Your task to perform on an android device: When is my next meeting? Image 0: 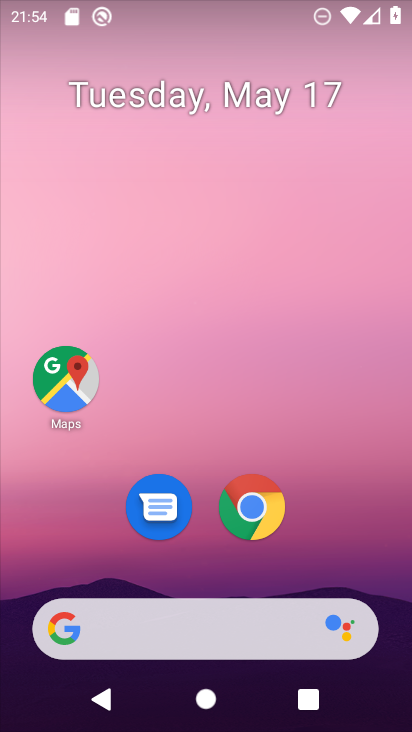
Step 0: drag from (359, 593) to (371, 32)
Your task to perform on an android device: When is my next meeting? Image 1: 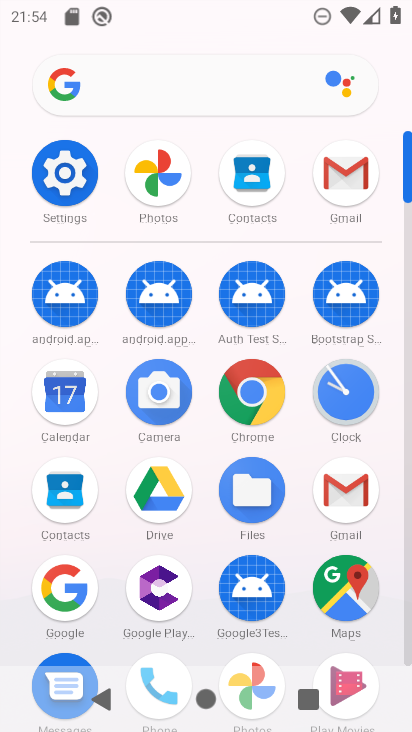
Step 1: click (59, 396)
Your task to perform on an android device: When is my next meeting? Image 2: 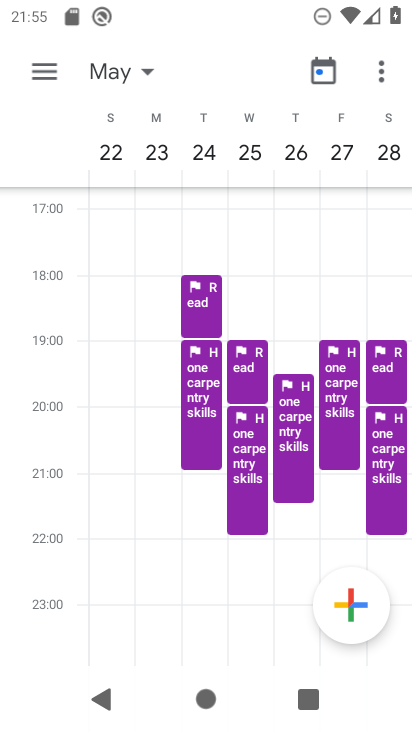
Step 2: click (41, 70)
Your task to perform on an android device: When is my next meeting? Image 3: 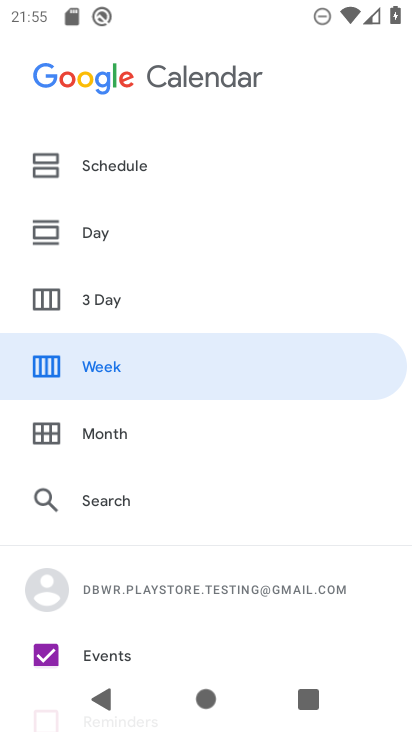
Step 3: click (92, 164)
Your task to perform on an android device: When is my next meeting? Image 4: 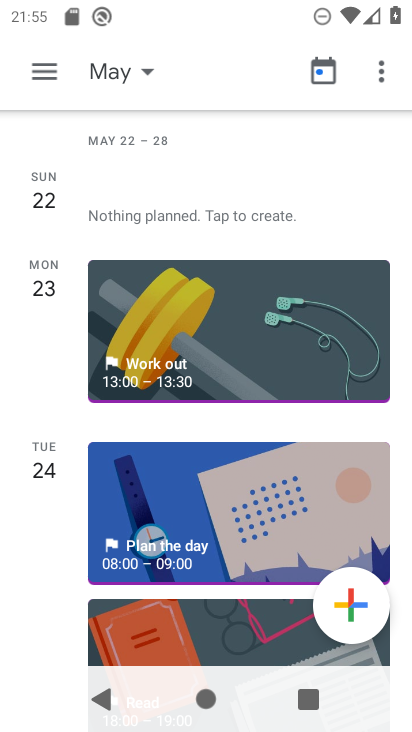
Step 4: drag from (141, 186) to (175, 458)
Your task to perform on an android device: When is my next meeting? Image 5: 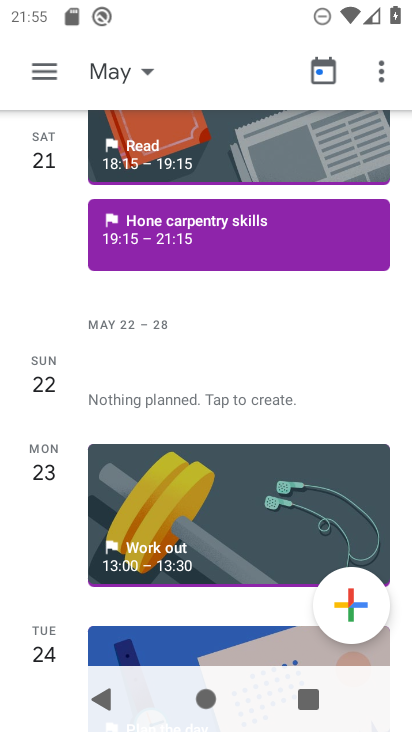
Step 5: click (320, 73)
Your task to perform on an android device: When is my next meeting? Image 6: 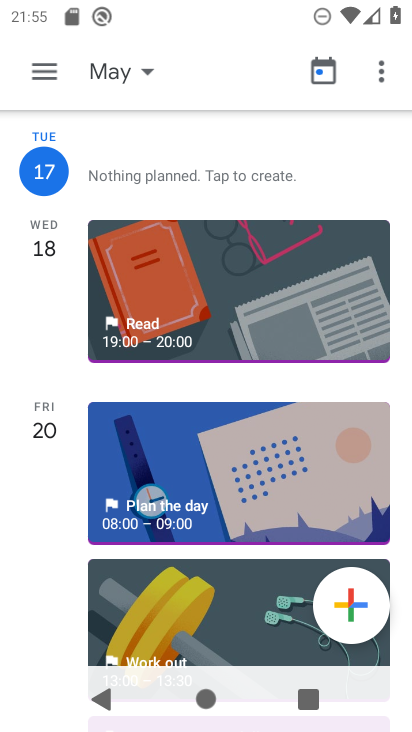
Step 6: drag from (209, 516) to (182, 89)
Your task to perform on an android device: When is my next meeting? Image 7: 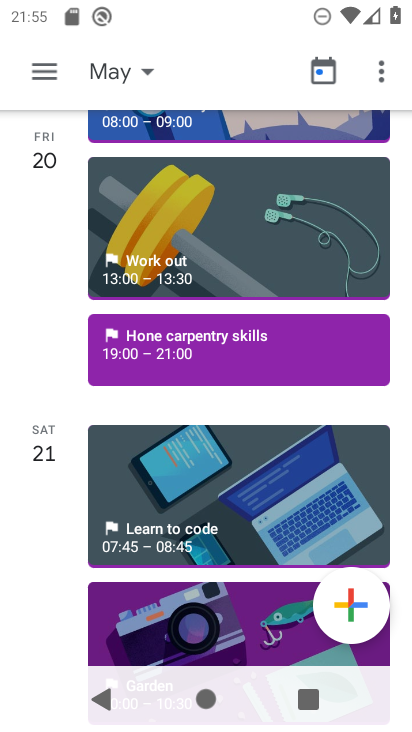
Step 7: click (180, 367)
Your task to perform on an android device: When is my next meeting? Image 8: 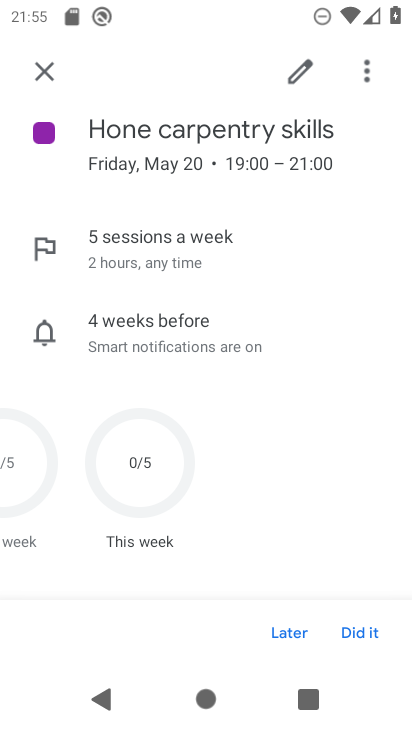
Step 8: task complete